Your task to perform on an android device: Open Chrome and go to the settings page Image 0: 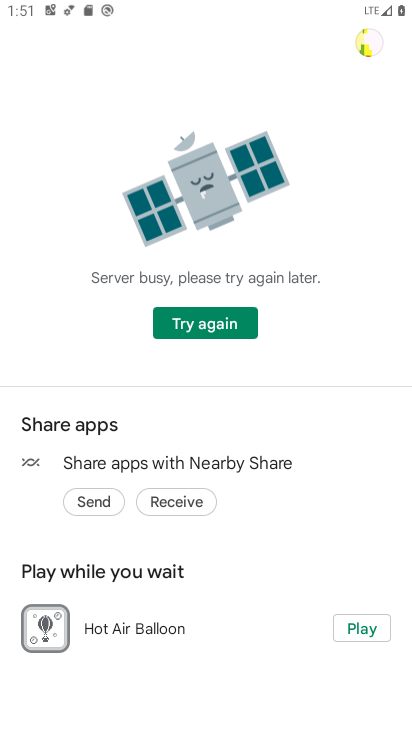
Step 0: press home button
Your task to perform on an android device: Open Chrome and go to the settings page Image 1: 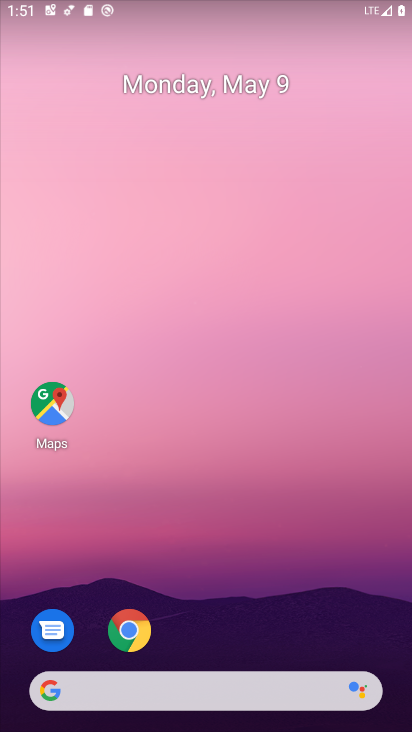
Step 1: click (124, 616)
Your task to perform on an android device: Open Chrome and go to the settings page Image 2: 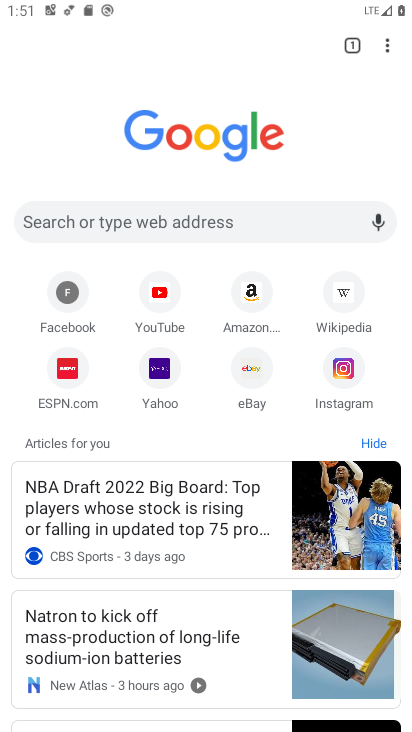
Step 2: click (390, 54)
Your task to perform on an android device: Open Chrome and go to the settings page Image 3: 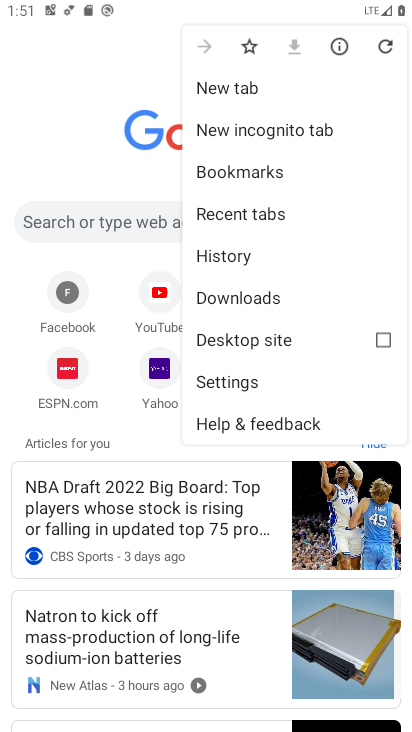
Step 3: click (252, 385)
Your task to perform on an android device: Open Chrome and go to the settings page Image 4: 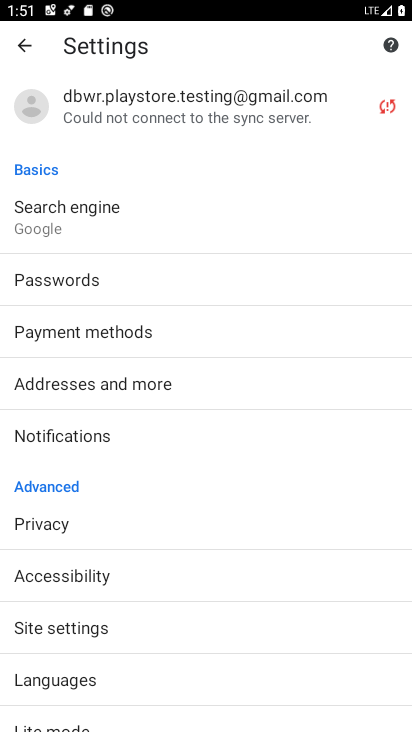
Step 4: task complete